Your task to perform on an android device: Open the phone app and click the voicemail tab. Image 0: 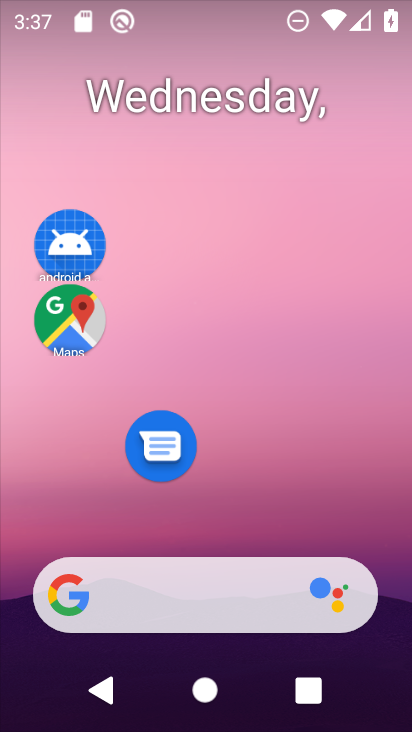
Step 0: drag from (291, 472) to (371, 26)
Your task to perform on an android device: Open the phone app and click the voicemail tab. Image 1: 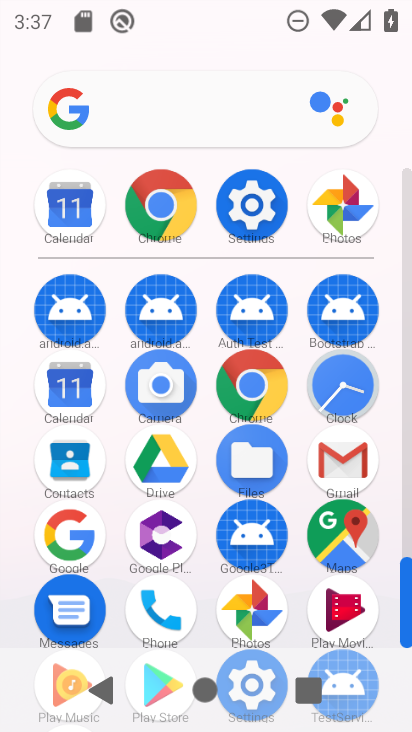
Step 1: click (180, 619)
Your task to perform on an android device: Open the phone app and click the voicemail tab. Image 2: 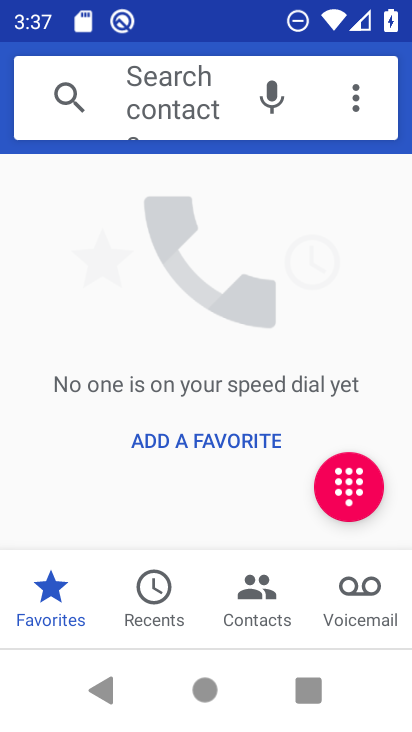
Step 2: click (362, 605)
Your task to perform on an android device: Open the phone app and click the voicemail tab. Image 3: 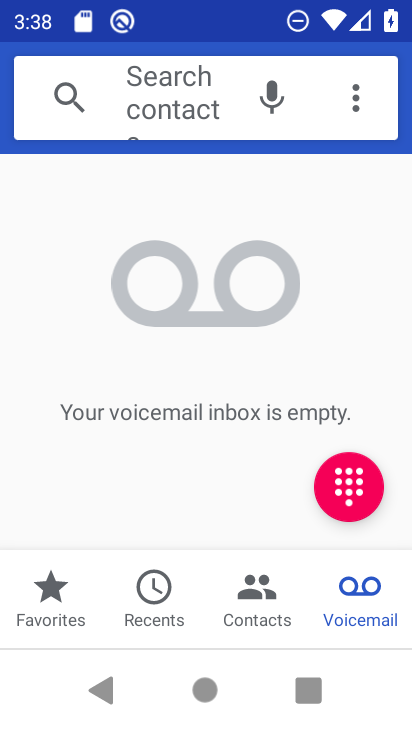
Step 3: task complete